Your task to perform on an android device: stop showing notifications on the lock screen Image 0: 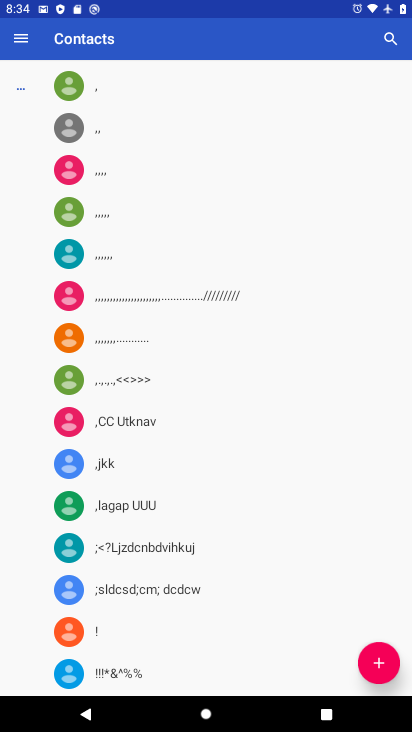
Step 0: press home button
Your task to perform on an android device: stop showing notifications on the lock screen Image 1: 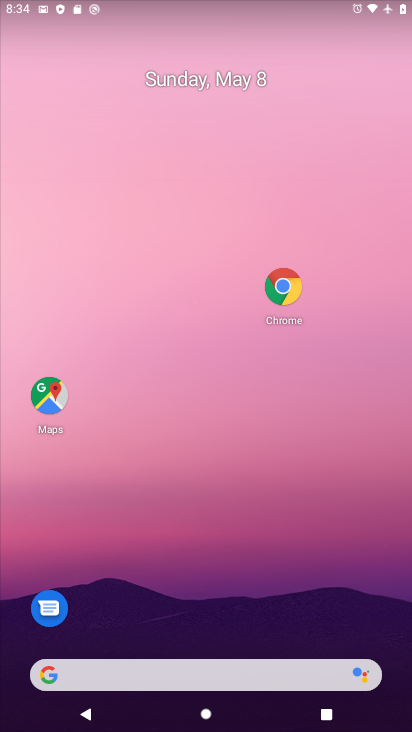
Step 1: drag from (181, 662) to (295, 274)
Your task to perform on an android device: stop showing notifications on the lock screen Image 2: 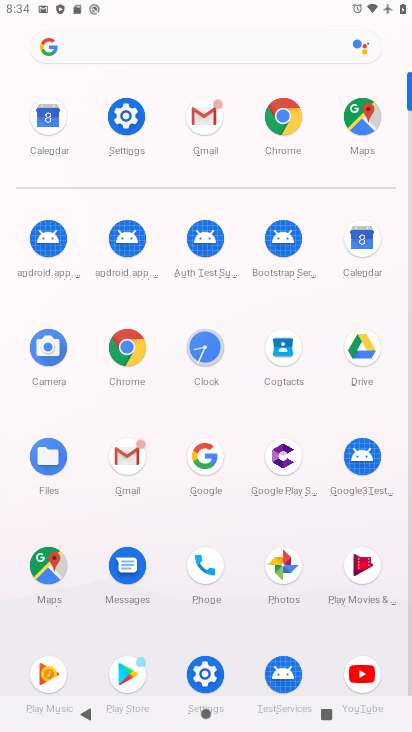
Step 2: click (125, 118)
Your task to perform on an android device: stop showing notifications on the lock screen Image 3: 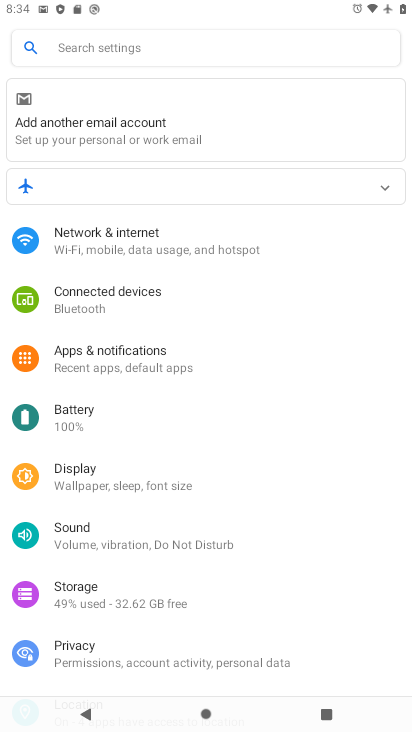
Step 3: click (152, 364)
Your task to perform on an android device: stop showing notifications on the lock screen Image 4: 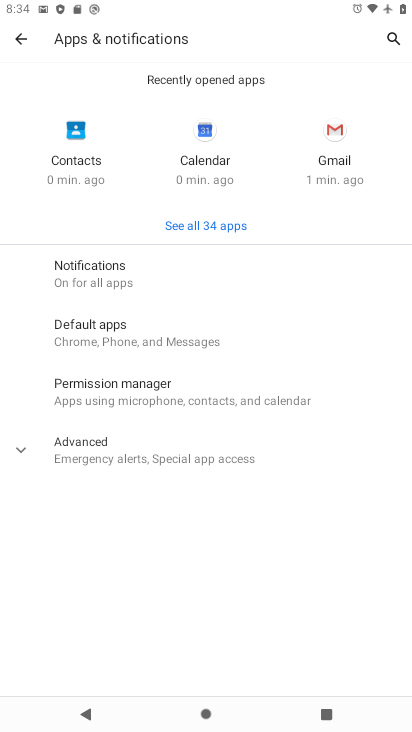
Step 4: click (104, 273)
Your task to perform on an android device: stop showing notifications on the lock screen Image 5: 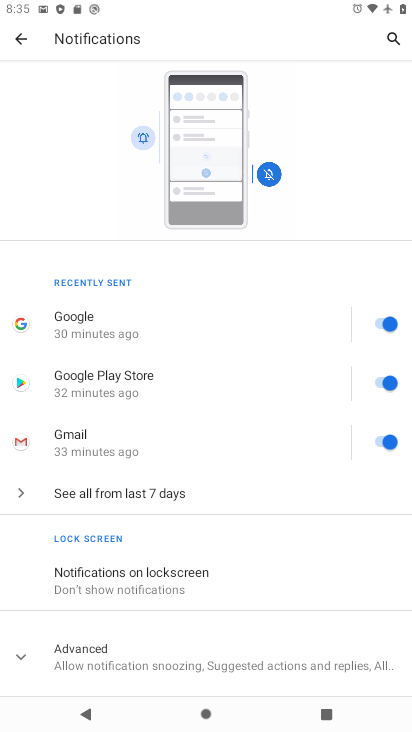
Step 5: click (134, 575)
Your task to perform on an android device: stop showing notifications on the lock screen Image 6: 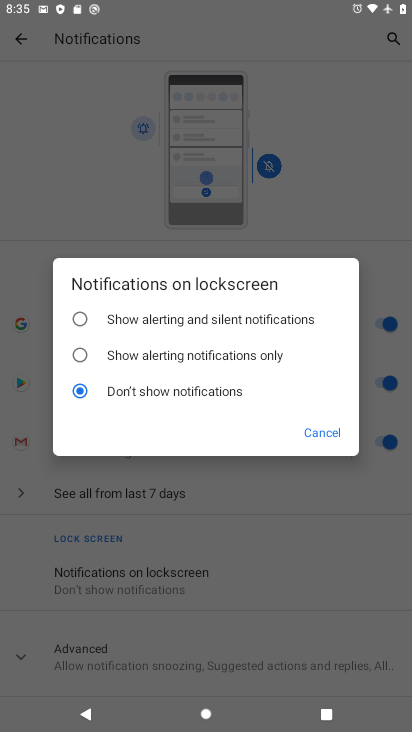
Step 6: task complete